Your task to perform on an android device: visit the assistant section in the google photos Image 0: 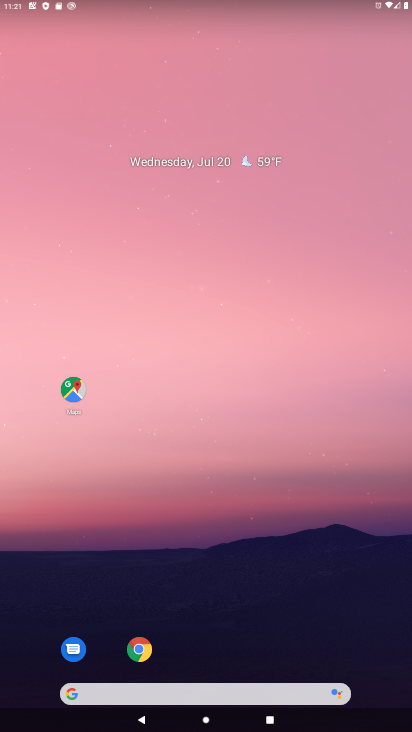
Step 0: drag from (195, 652) to (237, 115)
Your task to perform on an android device: visit the assistant section in the google photos Image 1: 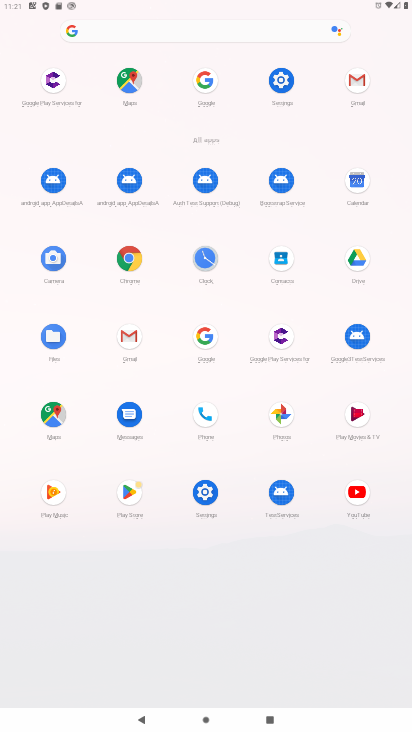
Step 1: click (279, 414)
Your task to perform on an android device: visit the assistant section in the google photos Image 2: 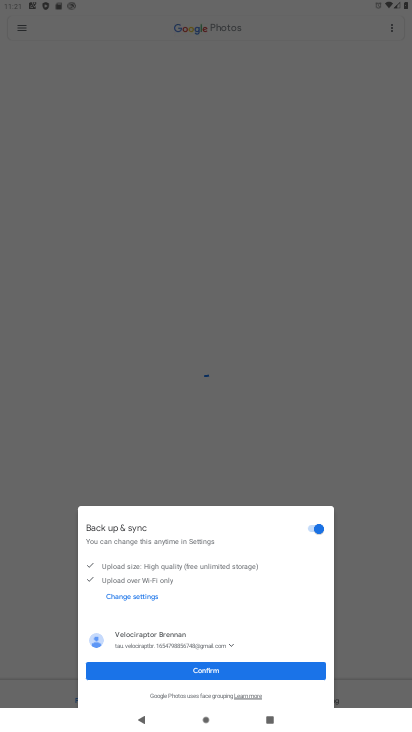
Step 2: click (209, 668)
Your task to perform on an android device: visit the assistant section in the google photos Image 3: 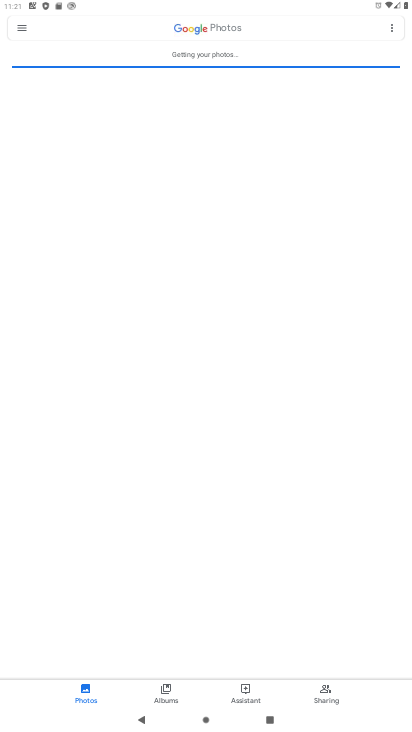
Step 3: click (244, 695)
Your task to perform on an android device: visit the assistant section in the google photos Image 4: 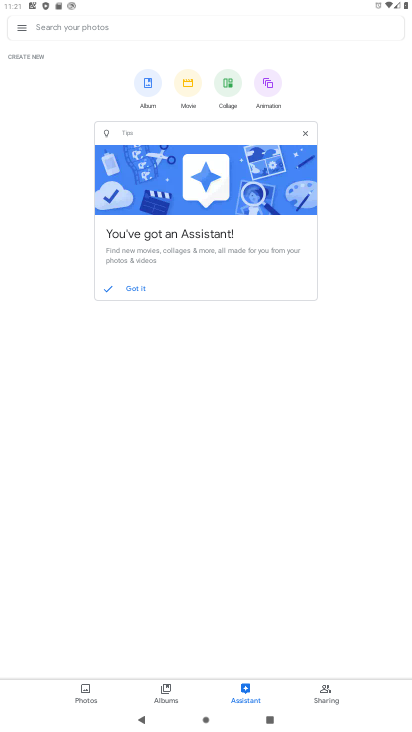
Step 4: task complete